Your task to perform on an android device: Open Google Chrome and open the bookmarks view Image 0: 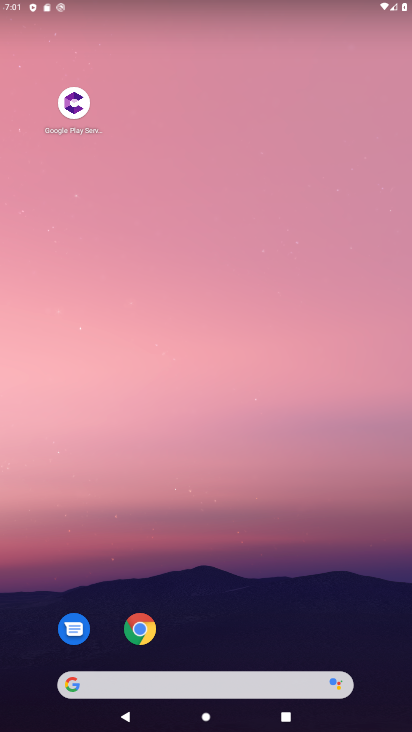
Step 0: click (143, 626)
Your task to perform on an android device: Open Google Chrome and open the bookmarks view Image 1: 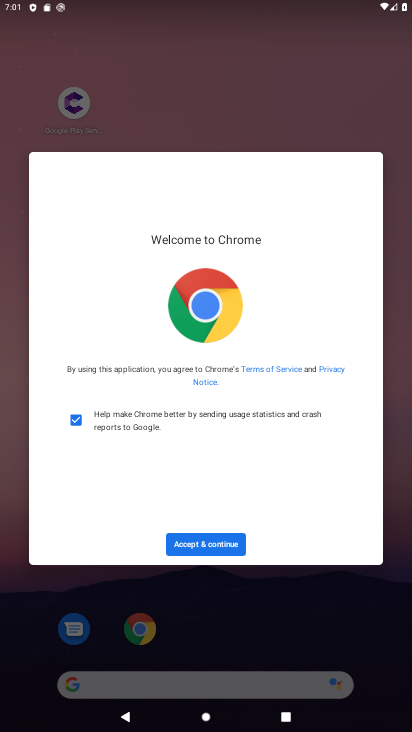
Step 1: click (219, 539)
Your task to perform on an android device: Open Google Chrome and open the bookmarks view Image 2: 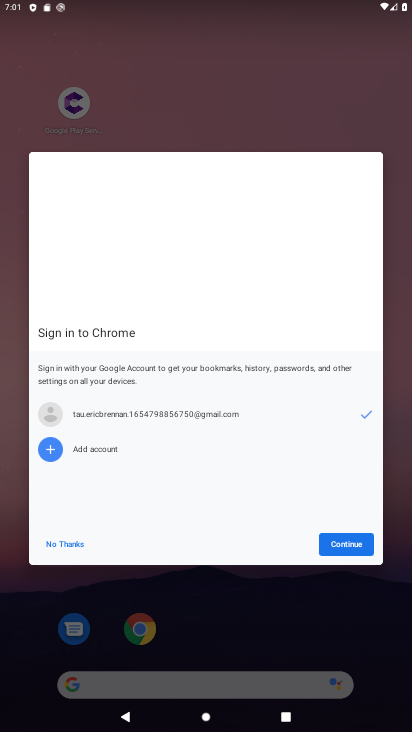
Step 2: click (331, 541)
Your task to perform on an android device: Open Google Chrome and open the bookmarks view Image 3: 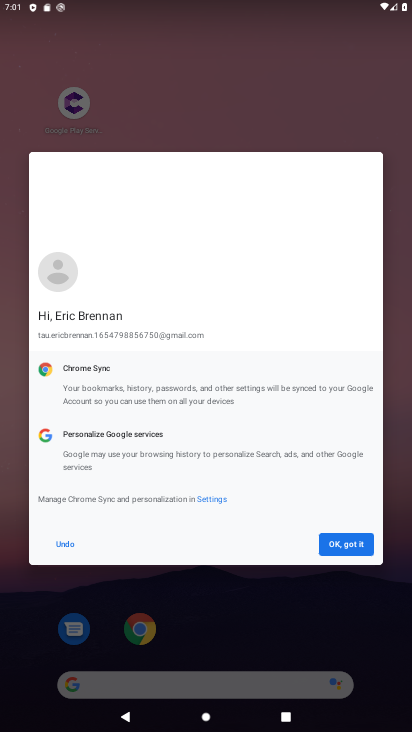
Step 3: click (344, 547)
Your task to perform on an android device: Open Google Chrome and open the bookmarks view Image 4: 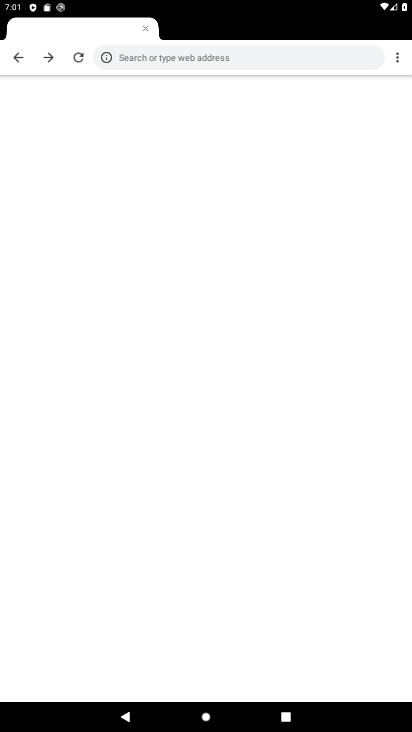
Step 4: click (398, 58)
Your task to perform on an android device: Open Google Chrome and open the bookmarks view Image 5: 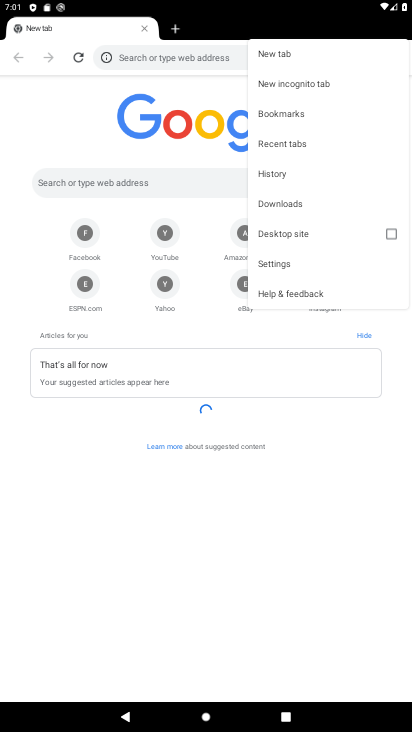
Step 5: click (277, 117)
Your task to perform on an android device: Open Google Chrome and open the bookmarks view Image 6: 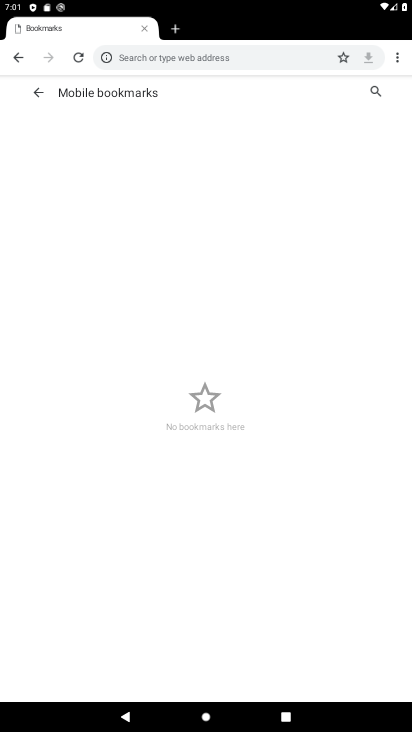
Step 6: task complete